Your task to perform on an android device: What's on my calendar today? Image 0: 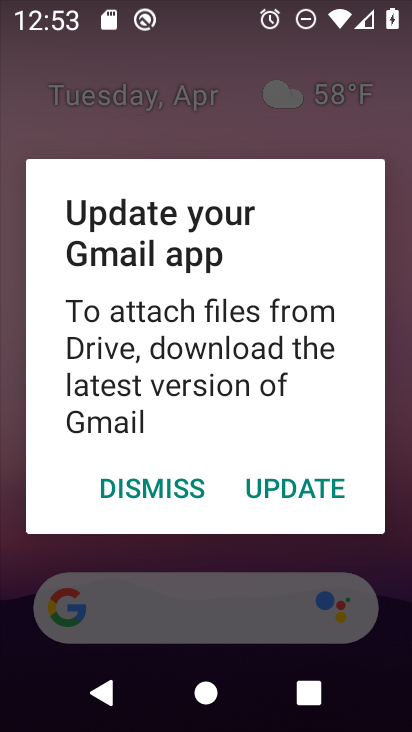
Step 0: press home button
Your task to perform on an android device: What's on my calendar today? Image 1: 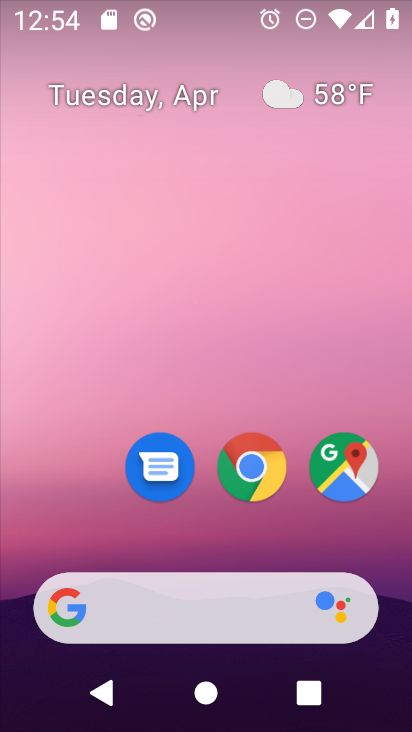
Step 1: click (217, 85)
Your task to perform on an android device: What's on my calendar today? Image 2: 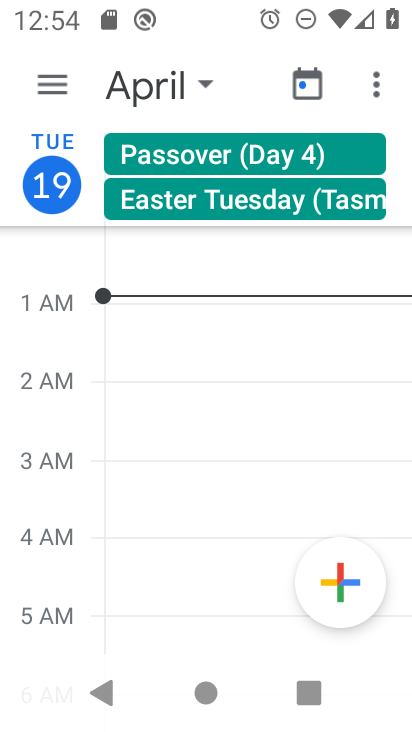
Step 2: click (202, 183)
Your task to perform on an android device: What's on my calendar today? Image 3: 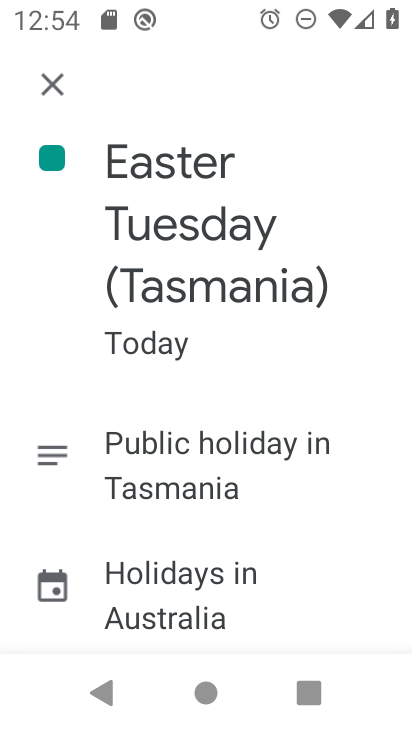
Step 3: task complete